Your task to perform on an android device: What is the news today? Image 0: 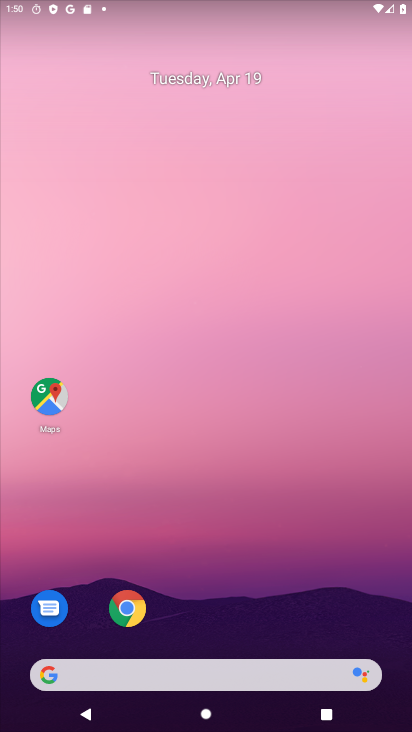
Step 0: click (117, 616)
Your task to perform on an android device: What is the news today? Image 1: 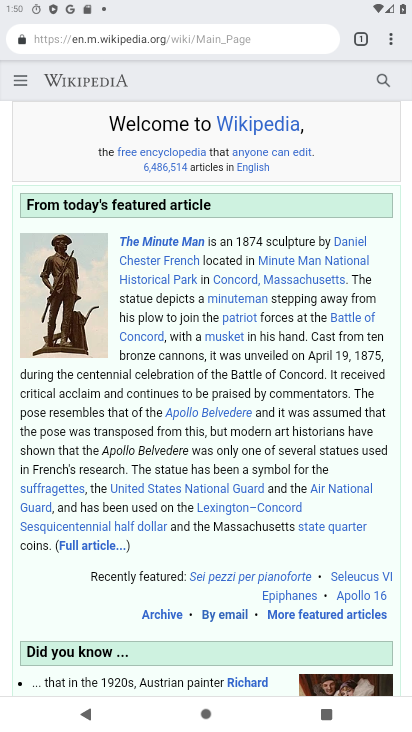
Step 1: type "What is the news today?"
Your task to perform on an android device: What is the news today? Image 2: 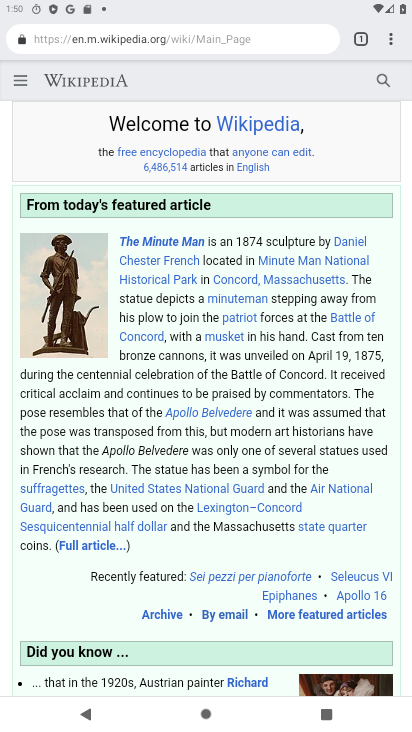
Step 2: click (244, 46)
Your task to perform on an android device: What is the news today? Image 3: 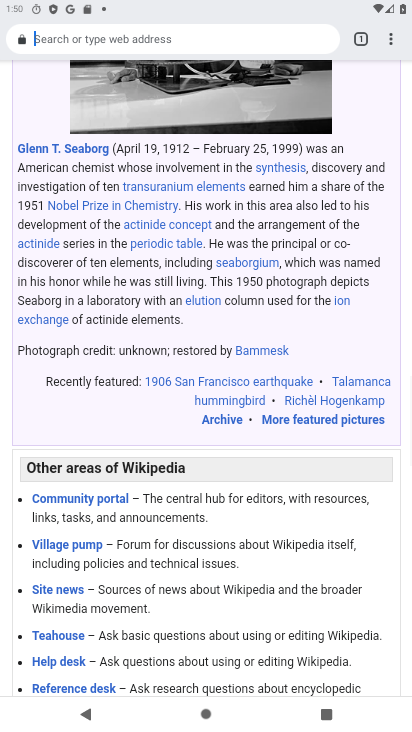
Step 3: click (264, 40)
Your task to perform on an android device: What is the news today? Image 4: 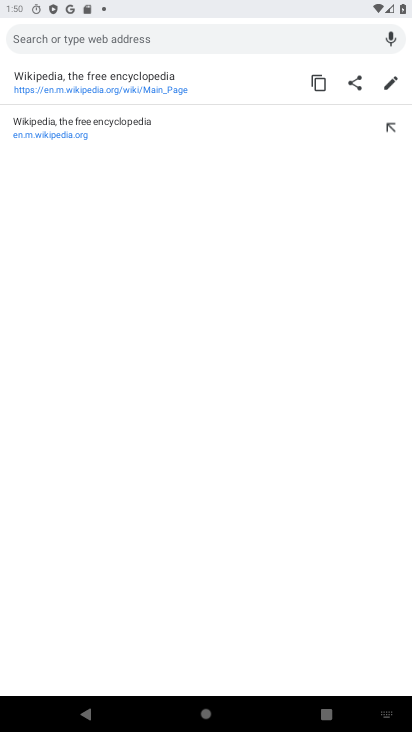
Step 4: click (264, 40)
Your task to perform on an android device: What is the news today? Image 5: 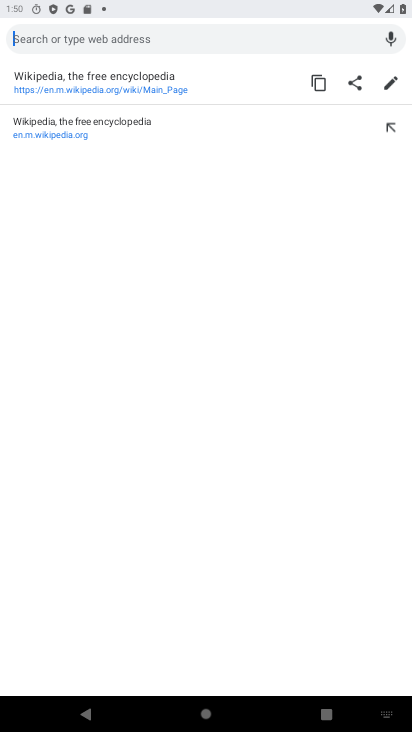
Step 5: click (296, 34)
Your task to perform on an android device: What is the news today? Image 6: 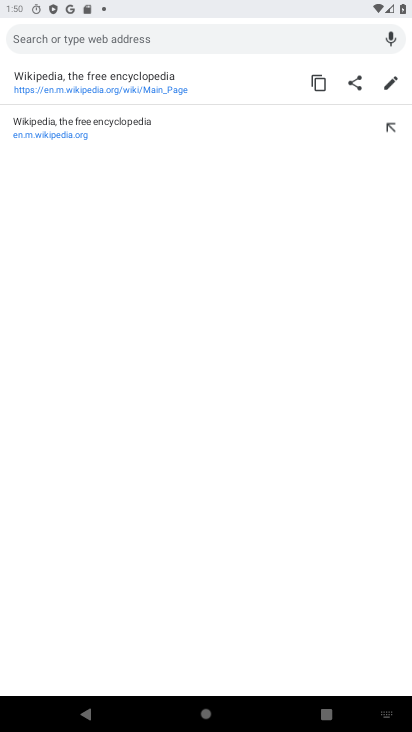
Step 6: type "What is the news today?"
Your task to perform on an android device: What is the news today? Image 7: 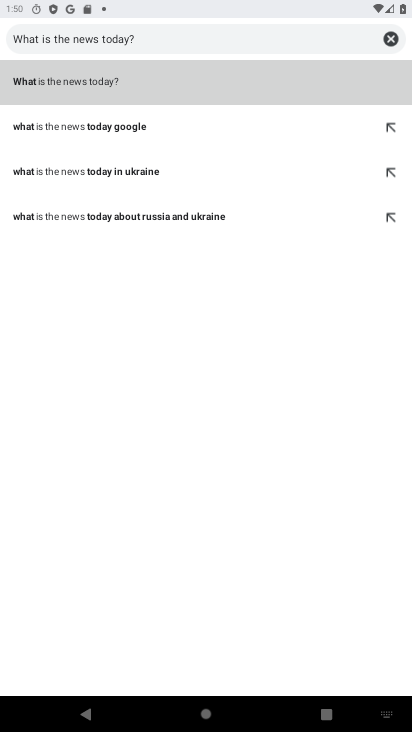
Step 7: click (85, 88)
Your task to perform on an android device: What is the news today? Image 8: 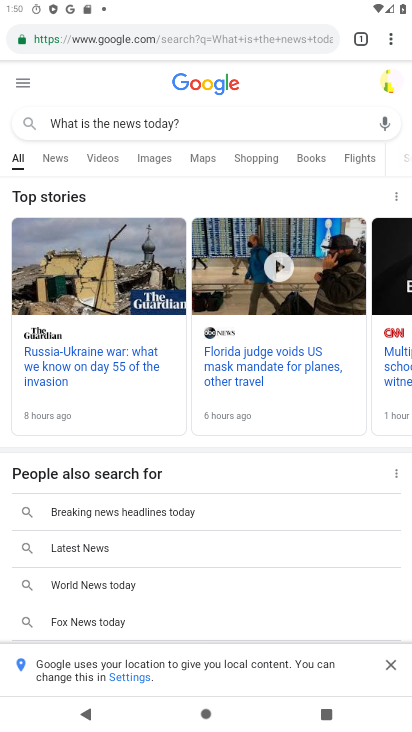
Step 8: task complete